Your task to perform on an android device: check battery use Image 0: 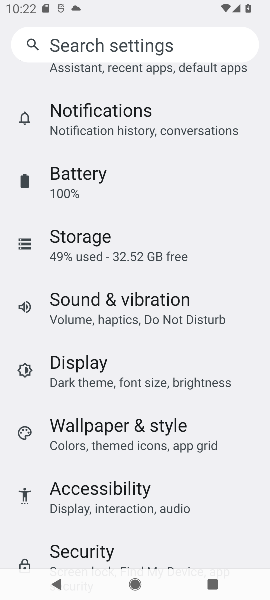
Step 0: click (120, 183)
Your task to perform on an android device: check battery use Image 1: 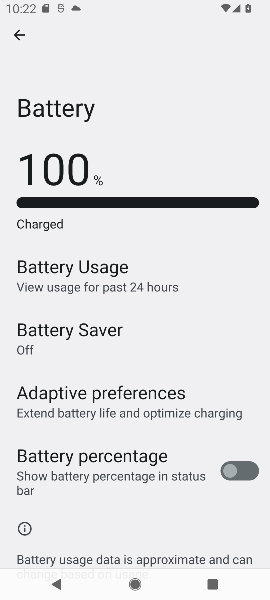
Step 1: click (131, 266)
Your task to perform on an android device: check battery use Image 2: 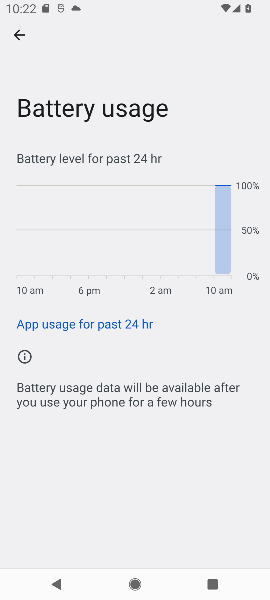
Step 2: task complete